Your task to perform on an android device: check storage Image 0: 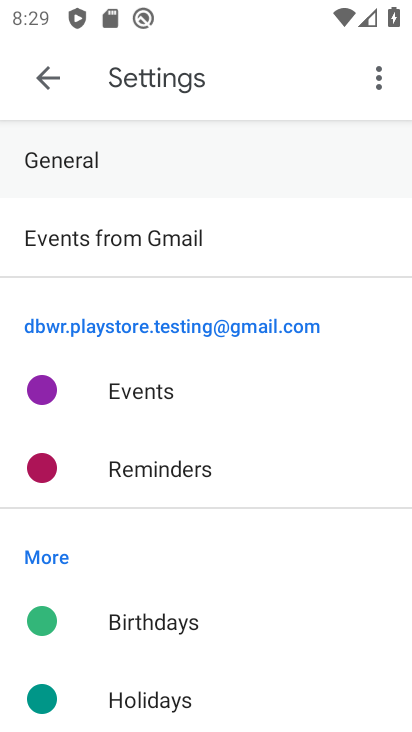
Step 0: press home button
Your task to perform on an android device: check storage Image 1: 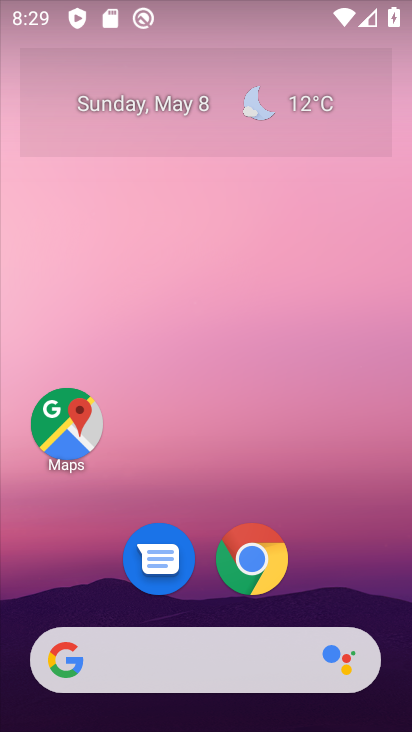
Step 1: drag from (196, 616) to (154, 7)
Your task to perform on an android device: check storage Image 2: 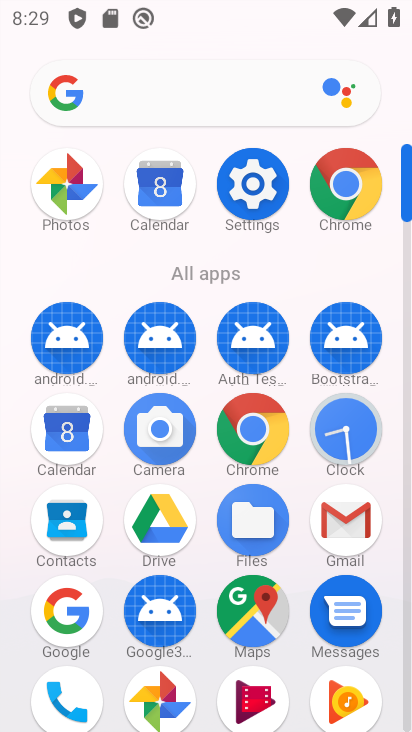
Step 2: click (214, 199)
Your task to perform on an android device: check storage Image 3: 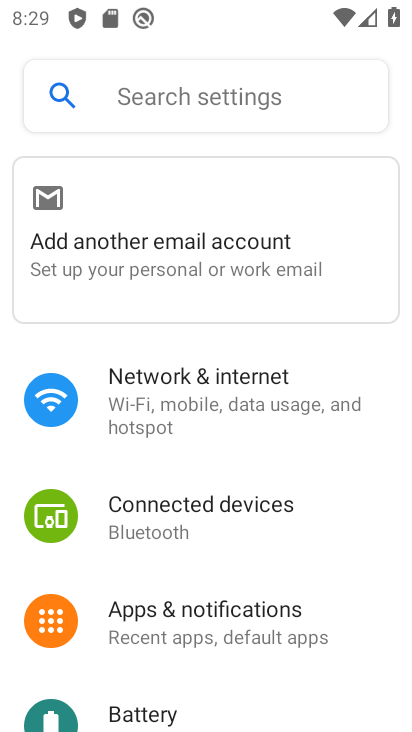
Step 3: drag from (179, 586) to (8, 18)
Your task to perform on an android device: check storage Image 4: 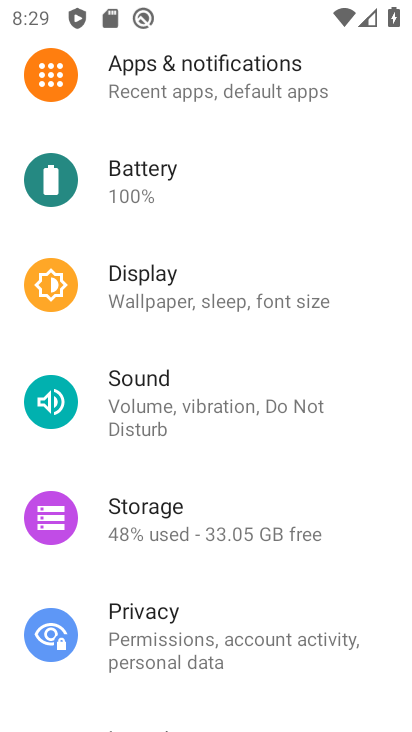
Step 4: click (152, 518)
Your task to perform on an android device: check storage Image 5: 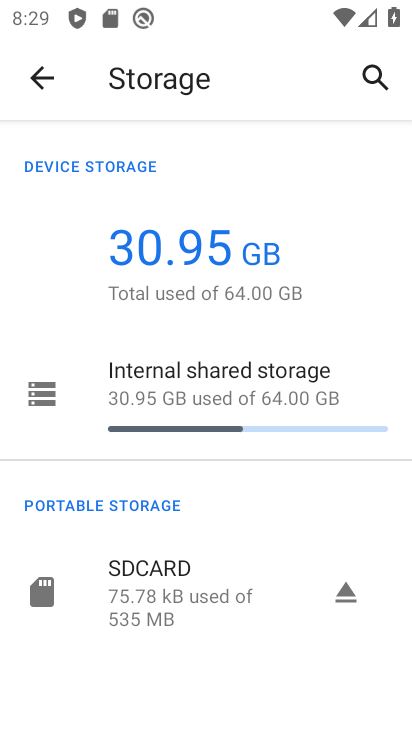
Step 5: click (181, 423)
Your task to perform on an android device: check storage Image 6: 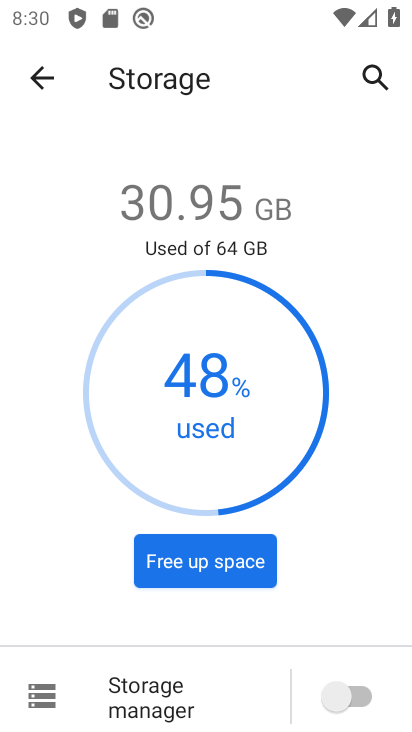
Step 6: task complete